Your task to perform on an android device: turn off notifications in google photos Image 0: 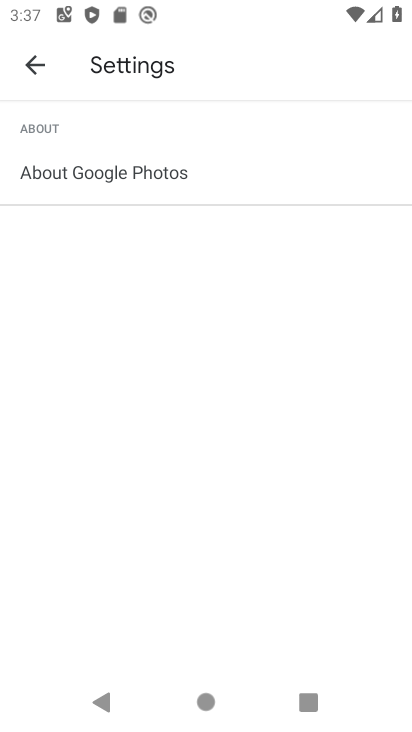
Step 0: press home button
Your task to perform on an android device: turn off notifications in google photos Image 1: 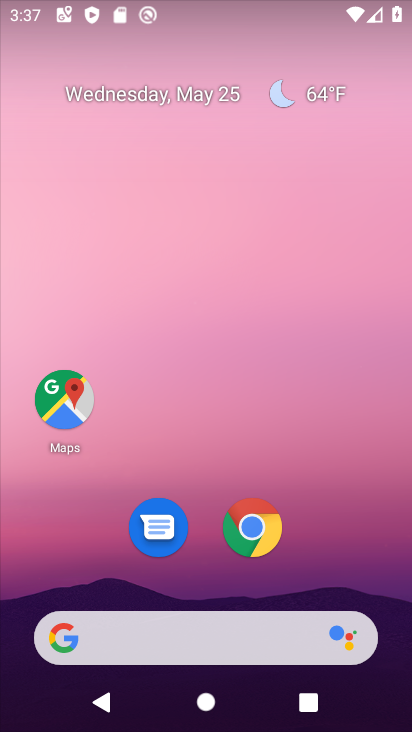
Step 1: drag from (176, 588) to (266, 95)
Your task to perform on an android device: turn off notifications in google photos Image 2: 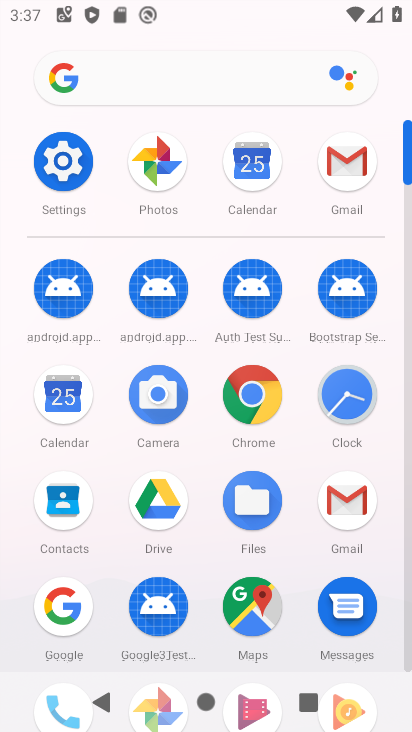
Step 2: drag from (210, 600) to (281, 159)
Your task to perform on an android device: turn off notifications in google photos Image 3: 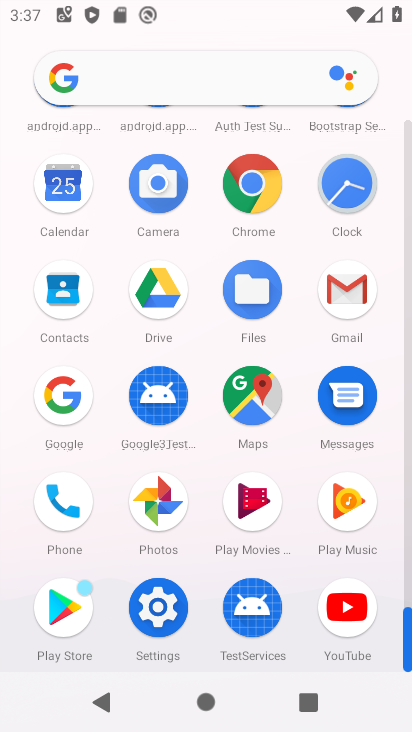
Step 3: click (150, 509)
Your task to perform on an android device: turn off notifications in google photos Image 4: 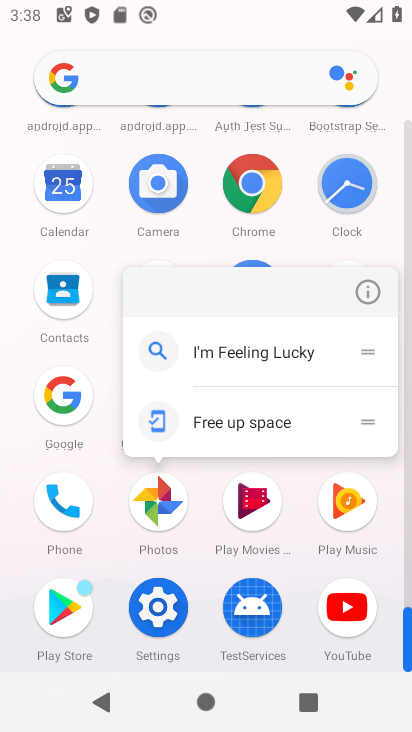
Step 4: click (359, 290)
Your task to perform on an android device: turn off notifications in google photos Image 5: 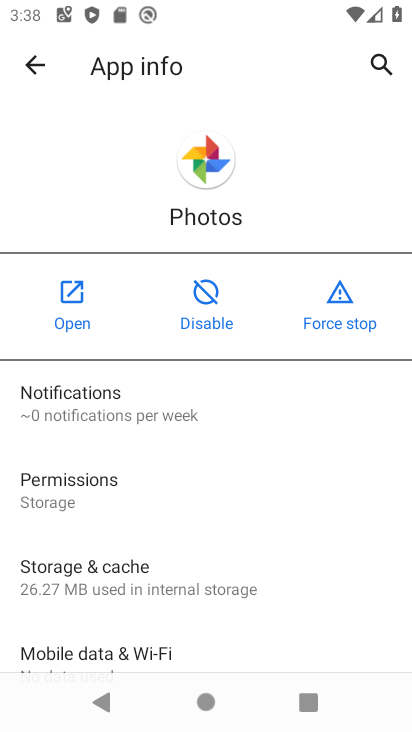
Step 5: click (197, 400)
Your task to perform on an android device: turn off notifications in google photos Image 6: 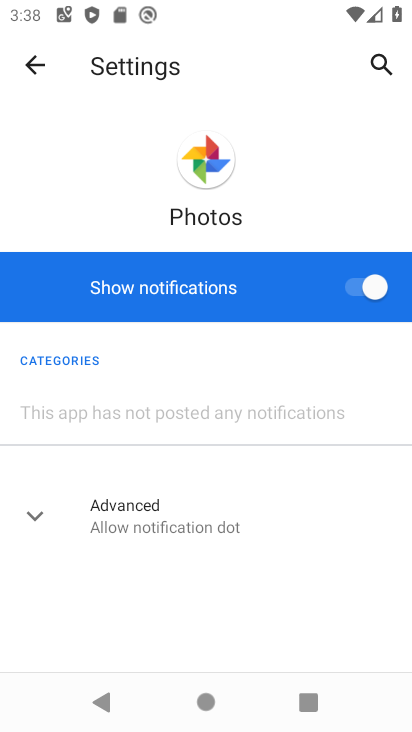
Step 6: click (368, 284)
Your task to perform on an android device: turn off notifications in google photos Image 7: 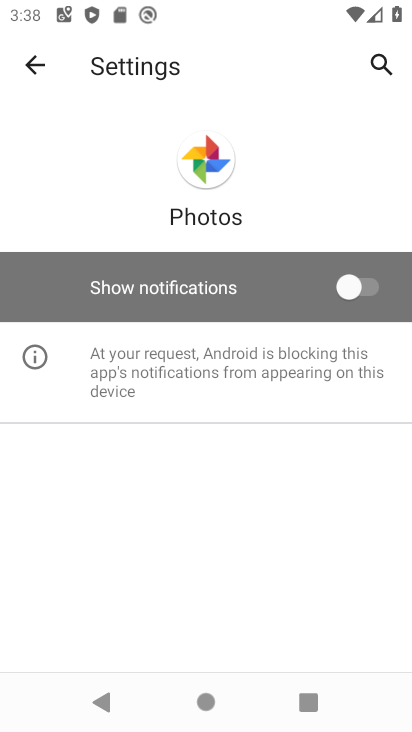
Step 7: task complete